Your task to perform on an android device: Open eBay Image 0: 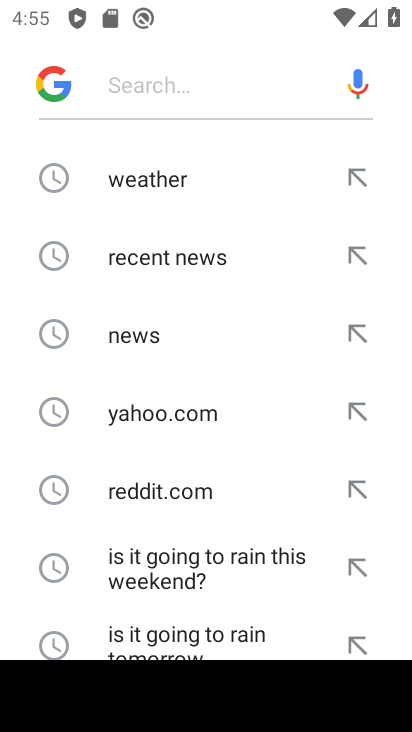
Step 0: type "ebay.com"
Your task to perform on an android device: Open eBay Image 1: 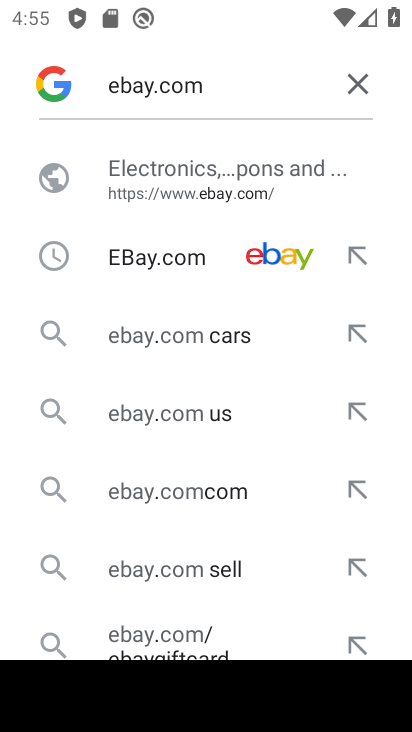
Step 1: click (201, 236)
Your task to perform on an android device: Open eBay Image 2: 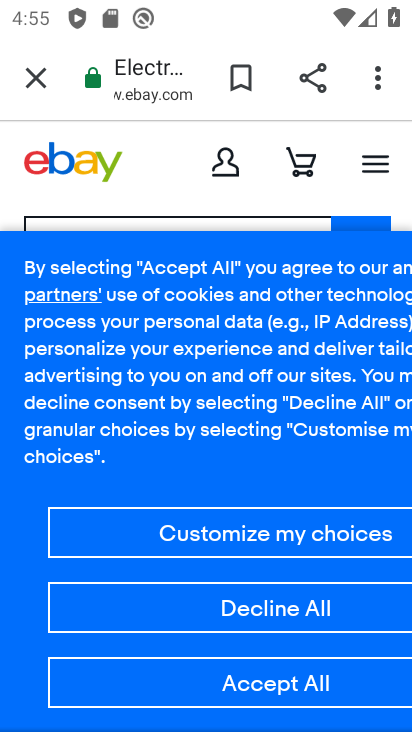
Step 2: task complete